Your task to perform on an android device: check the backup settings in the google photos Image 0: 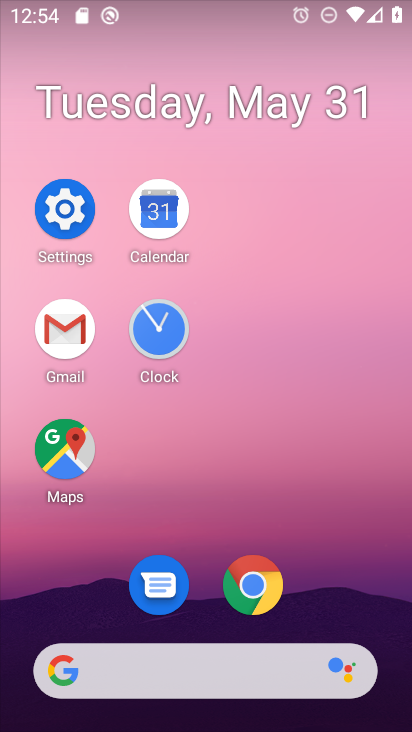
Step 0: drag from (353, 597) to (299, 162)
Your task to perform on an android device: check the backup settings in the google photos Image 1: 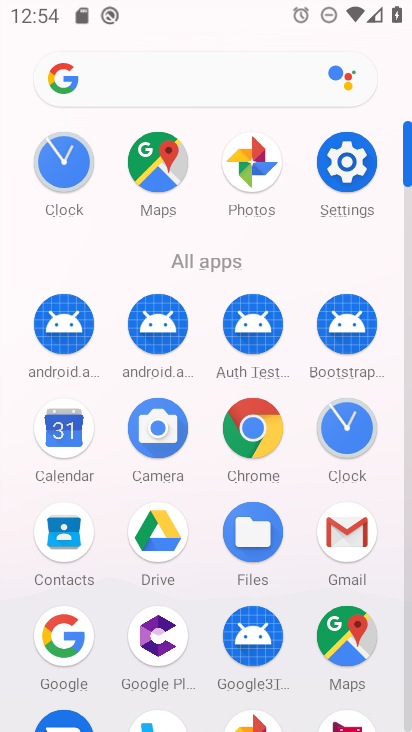
Step 1: drag from (234, 158) to (155, 431)
Your task to perform on an android device: check the backup settings in the google photos Image 2: 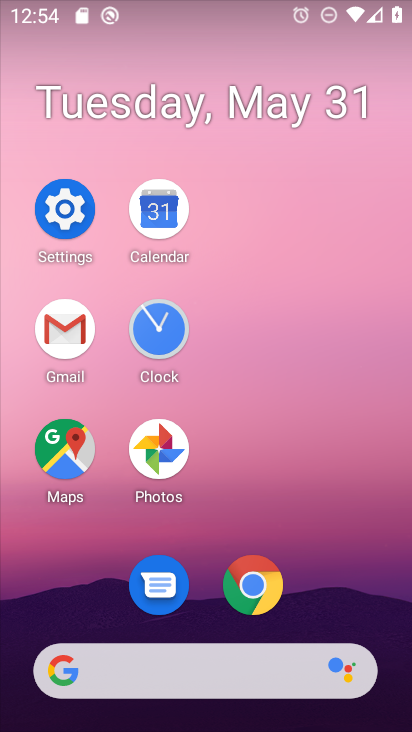
Step 2: click (161, 429)
Your task to perform on an android device: check the backup settings in the google photos Image 3: 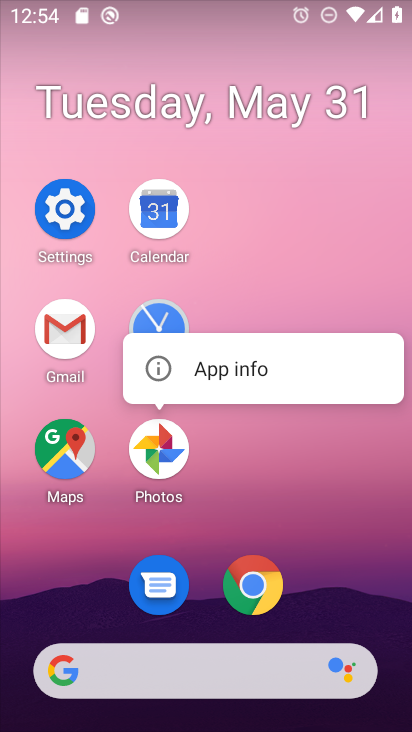
Step 3: click (148, 465)
Your task to perform on an android device: check the backup settings in the google photos Image 4: 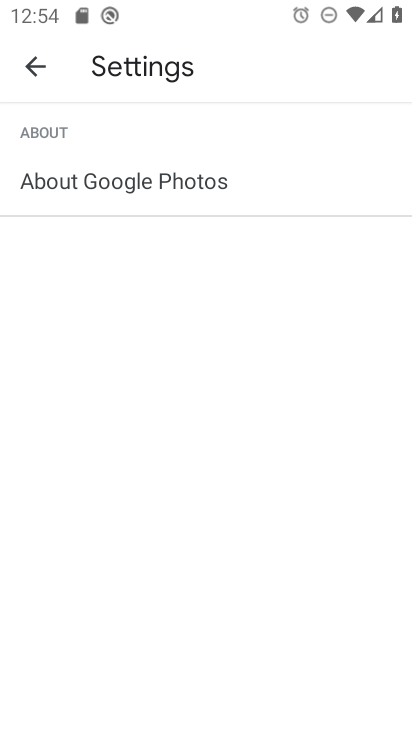
Step 4: click (37, 51)
Your task to perform on an android device: check the backup settings in the google photos Image 5: 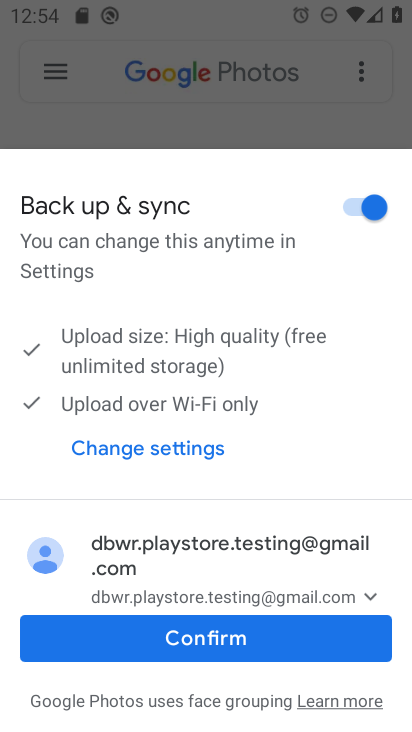
Step 5: click (328, 130)
Your task to perform on an android device: check the backup settings in the google photos Image 6: 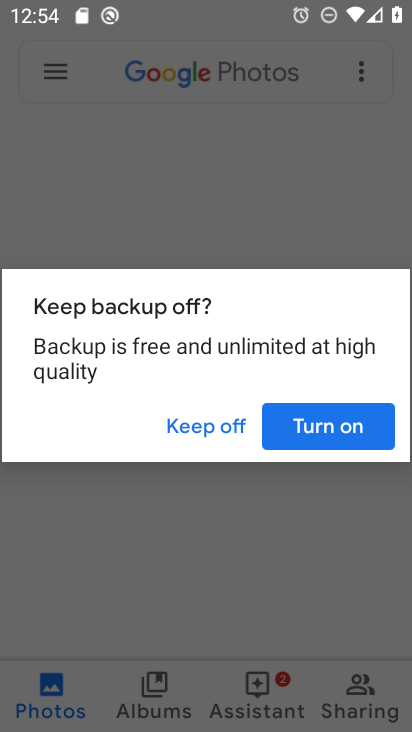
Step 6: click (313, 428)
Your task to perform on an android device: check the backup settings in the google photos Image 7: 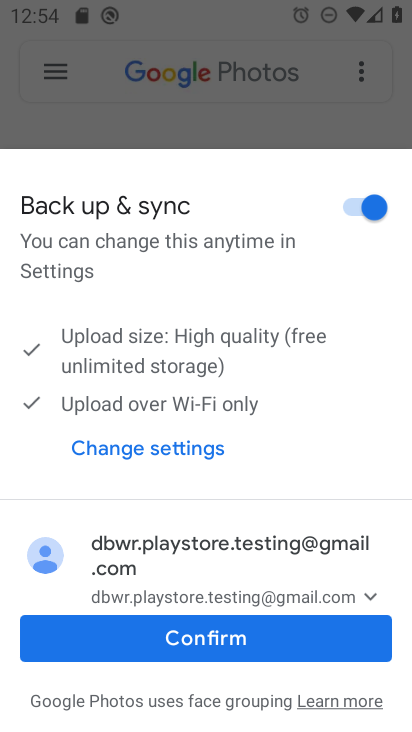
Step 7: click (55, 76)
Your task to perform on an android device: check the backup settings in the google photos Image 8: 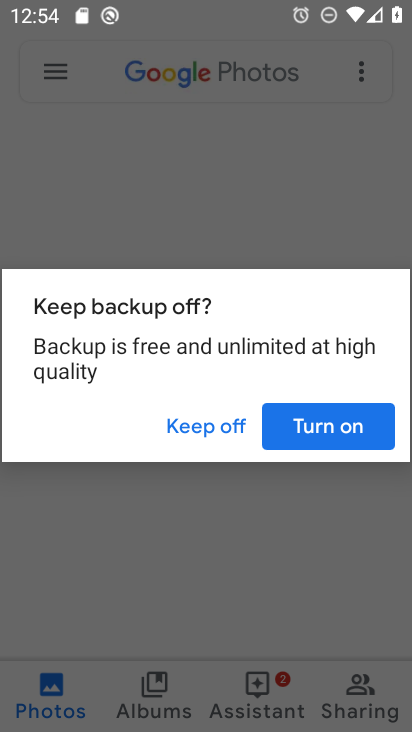
Step 8: click (321, 432)
Your task to perform on an android device: check the backup settings in the google photos Image 9: 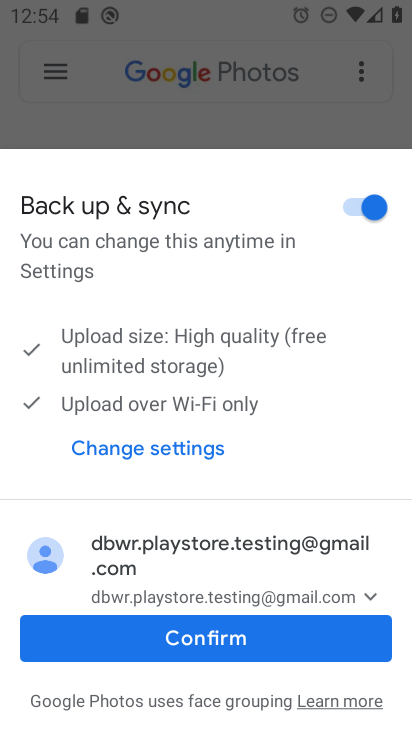
Step 9: click (283, 628)
Your task to perform on an android device: check the backup settings in the google photos Image 10: 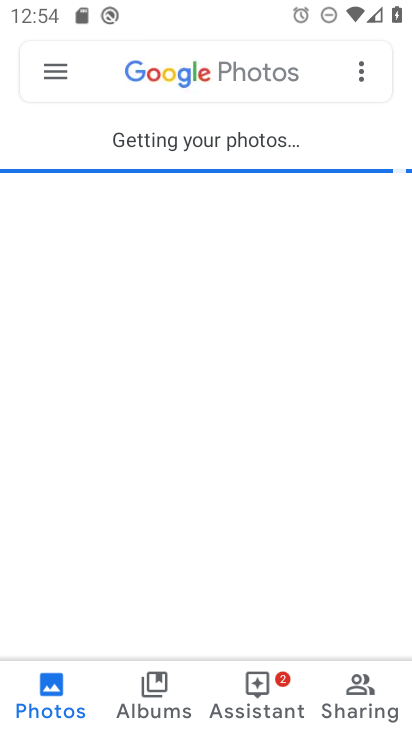
Step 10: click (64, 85)
Your task to perform on an android device: check the backup settings in the google photos Image 11: 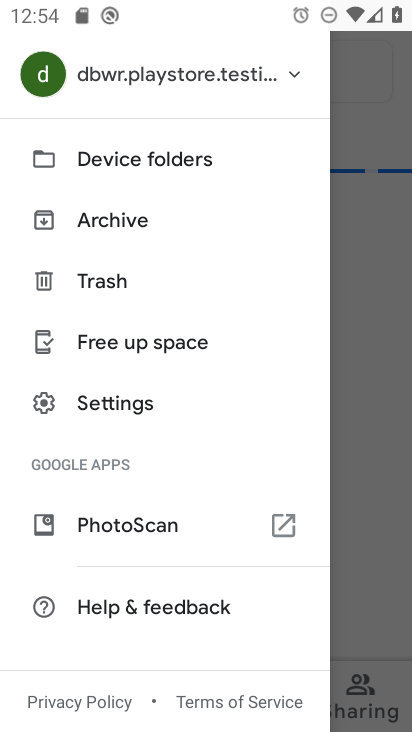
Step 11: click (183, 416)
Your task to perform on an android device: check the backup settings in the google photos Image 12: 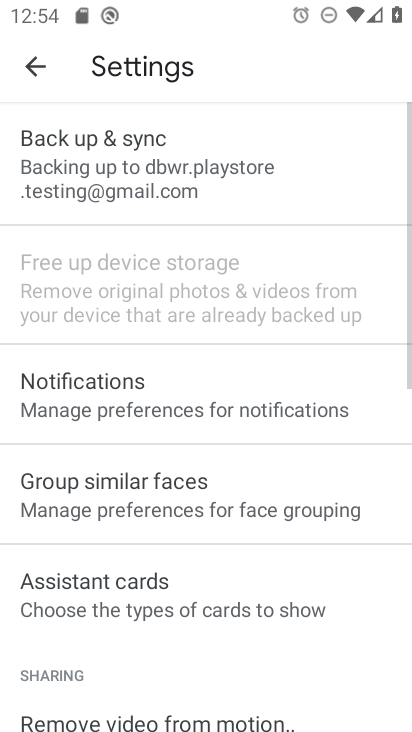
Step 12: click (238, 155)
Your task to perform on an android device: check the backup settings in the google photos Image 13: 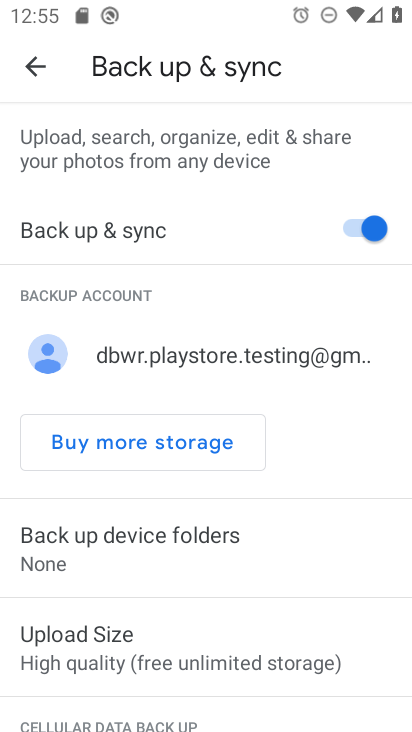
Step 13: click (246, 195)
Your task to perform on an android device: check the backup settings in the google photos Image 14: 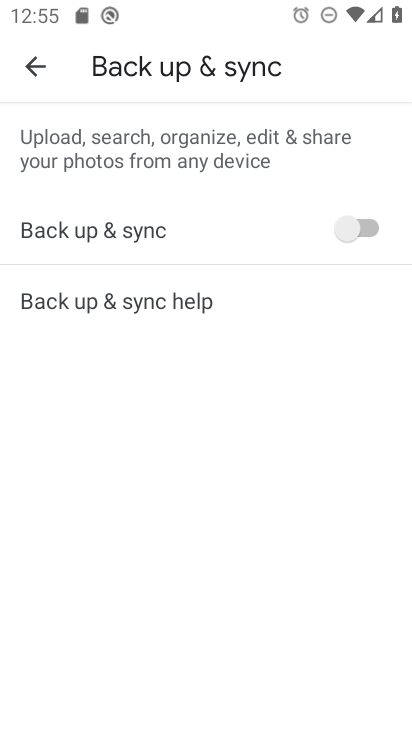
Step 14: drag from (227, 639) to (280, 330)
Your task to perform on an android device: check the backup settings in the google photos Image 15: 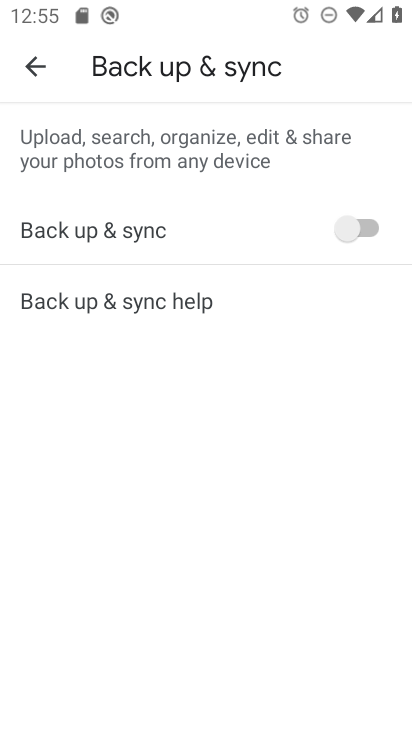
Step 15: click (376, 230)
Your task to perform on an android device: check the backup settings in the google photos Image 16: 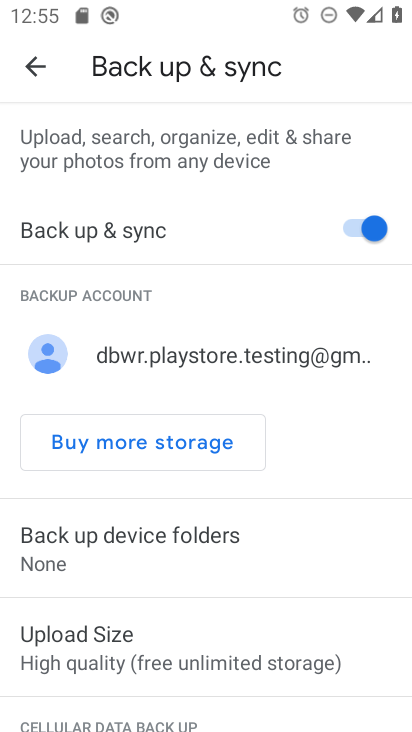
Step 16: task complete